Your task to perform on an android device: open the mobile data screen to see how much data has been used Image 0: 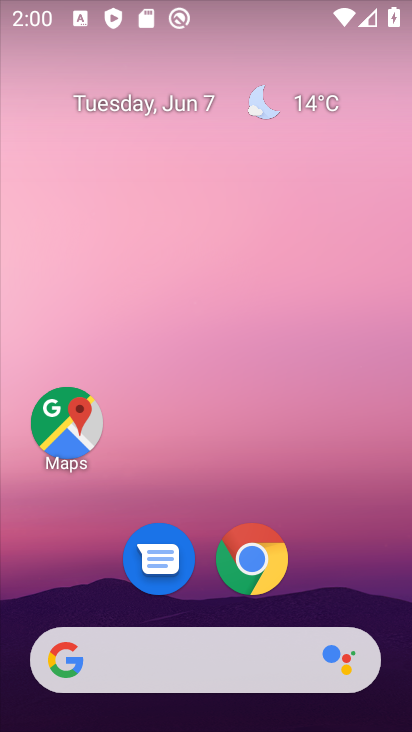
Step 0: drag from (68, 729) to (217, 195)
Your task to perform on an android device: open the mobile data screen to see how much data has been used Image 1: 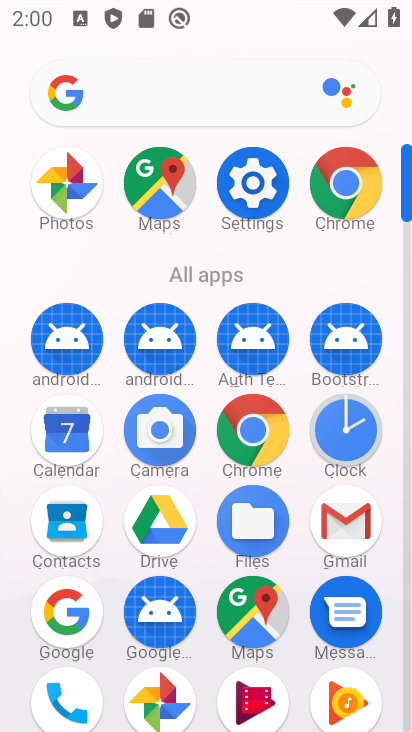
Step 1: click (246, 194)
Your task to perform on an android device: open the mobile data screen to see how much data has been used Image 2: 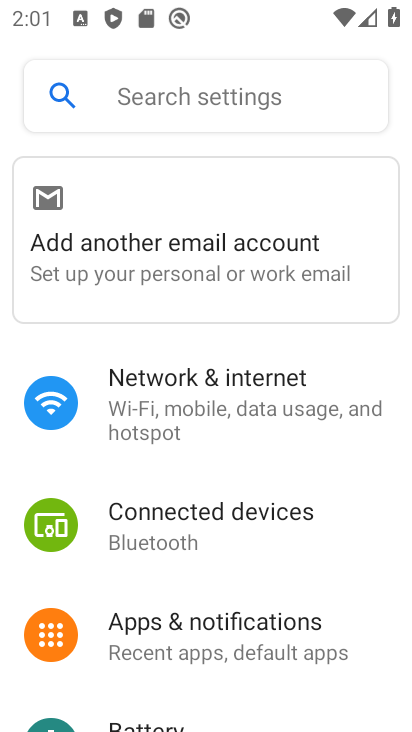
Step 2: click (152, 387)
Your task to perform on an android device: open the mobile data screen to see how much data has been used Image 3: 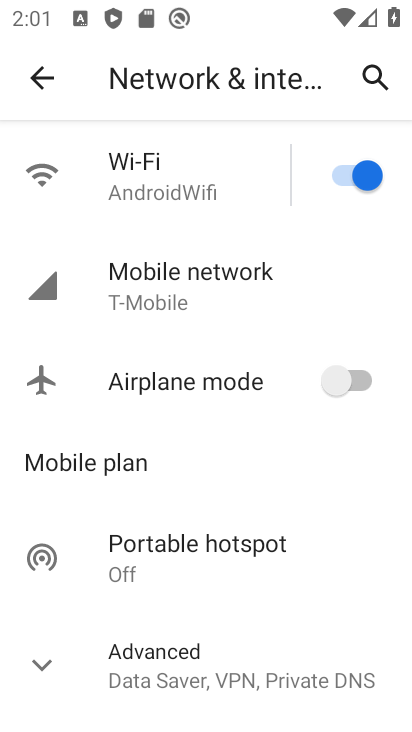
Step 3: click (109, 296)
Your task to perform on an android device: open the mobile data screen to see how much data has been used Image 4: 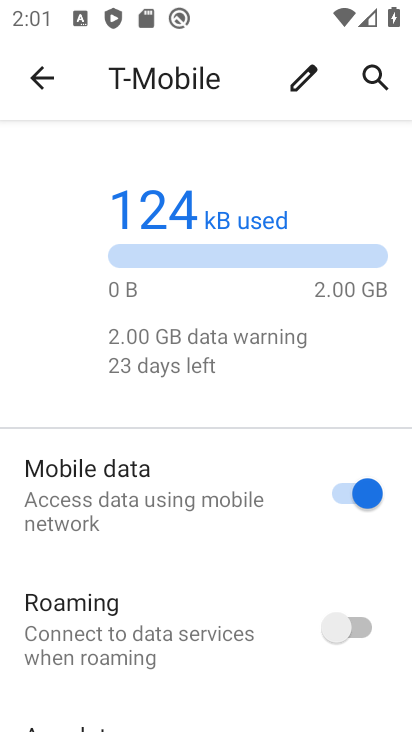
Step 4: task complete